Your task to perform on an android device: turn off airplane mode Image 0: 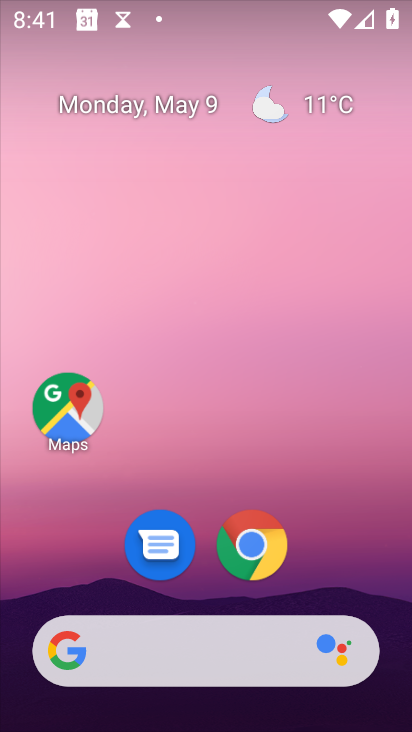
Step 0: drag from (193, 725) to (193, 94)
Your task to perform on an android device: turn off airplane mode Image 1: 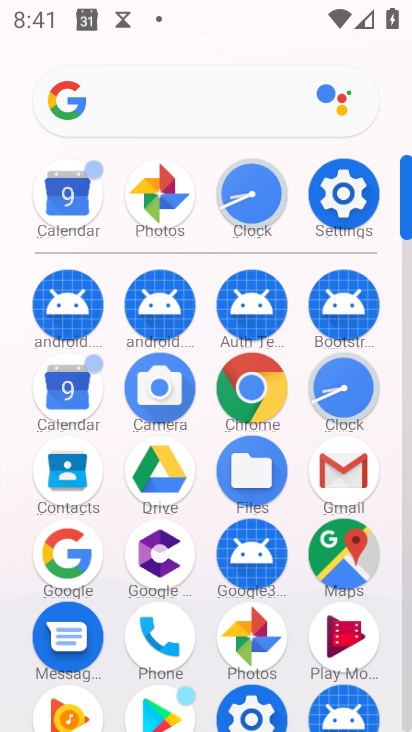
Step 1: click (347, 188)
Your task to perform on an android device: turn off airplane mode Image 2: 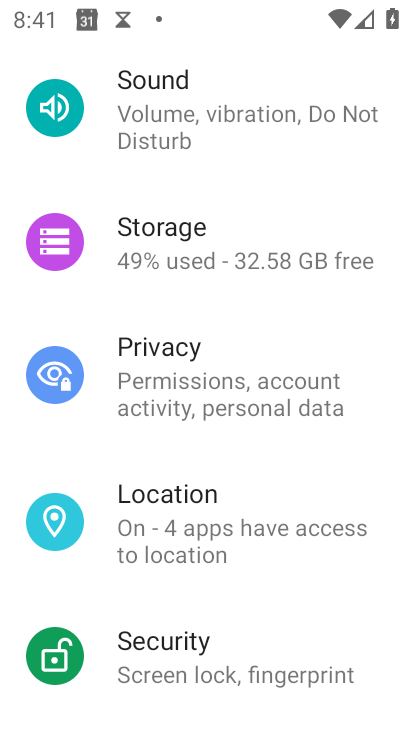
Step 2: drag from (329, 161) to (313, 579)
Your task to perform on an android device: turn off airplane mode Image 3: 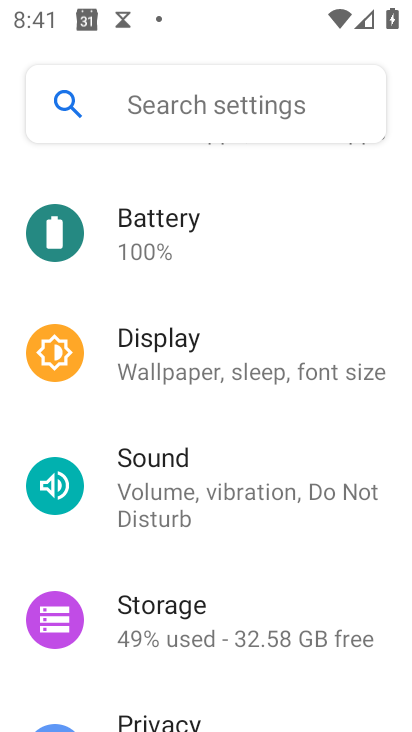
Step 3: drag from (307, 209) to (327, 568)
Your task to perform on an android device: turn off airplane mode Image 4: 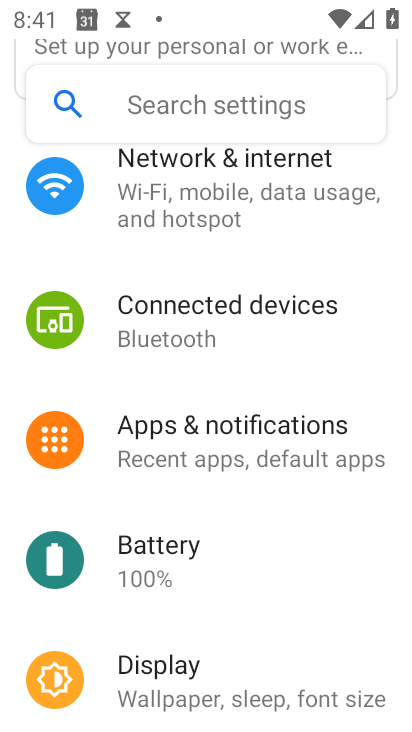
Step 4: drag from (364, 162) to (366, 522)
Your task to perform on an android device: turn off airplane mode Image 5: 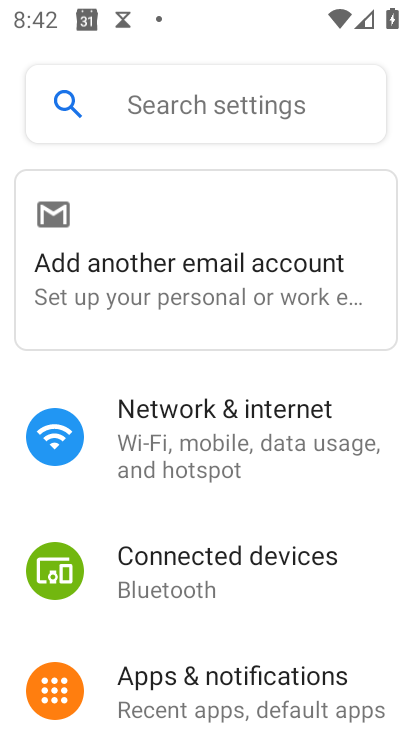
Step 5: click (204, 411)
Your task to perform on an android device: turn off airplane mode Image 6: 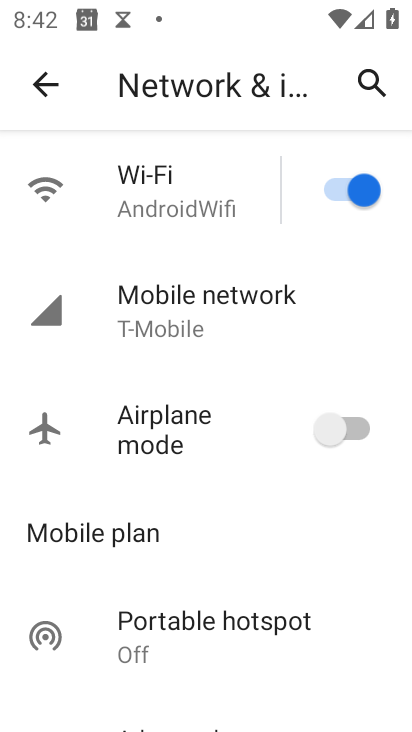
Step 6: task complete